Your task to perform on an android device: check out phone information Image 0: 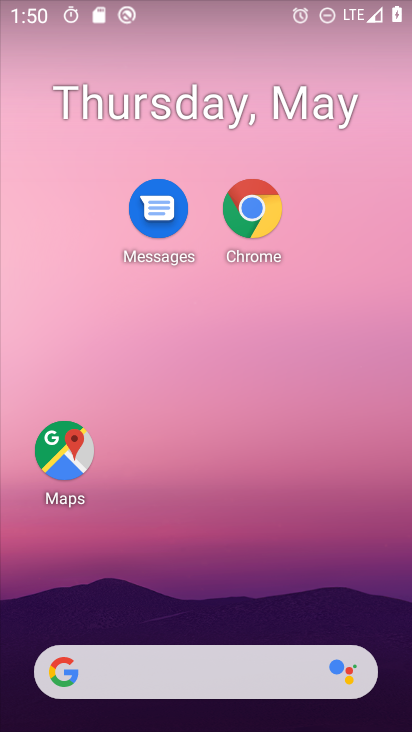
Step 0: drag from (173, 600) to (175, 115)
Your task to perform on an android device: check out phone information Image 1: 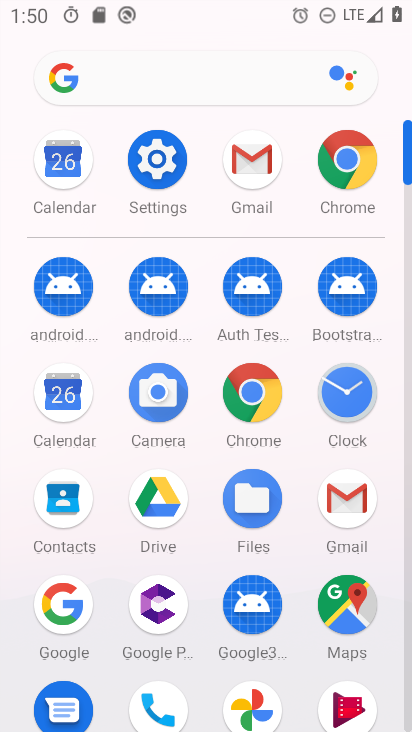
Step 1: click (157, 166)
Your task to perform on an android device: check out phone information Image 2: 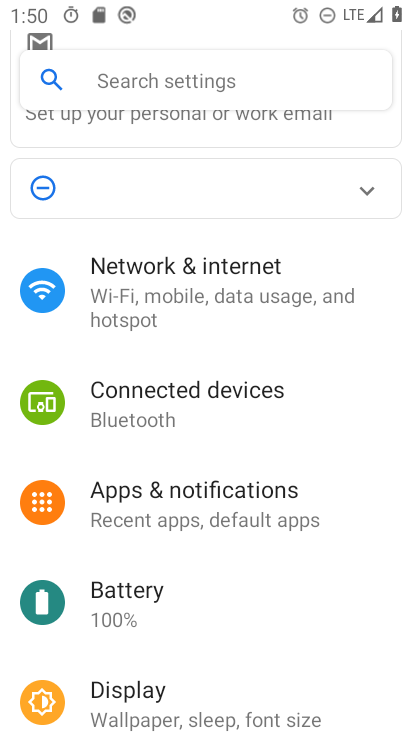
Step 2: drag from (185, 696) to (183, 219)
Your task to perform on an android device: check out phone information Image 3: 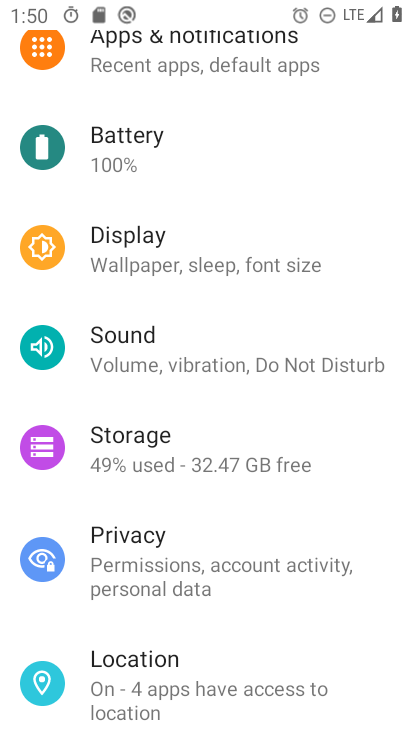
Step 3: drag from (162, 640) to (244, 166)
Your task to perform on an android device: check out phone information Image 4: 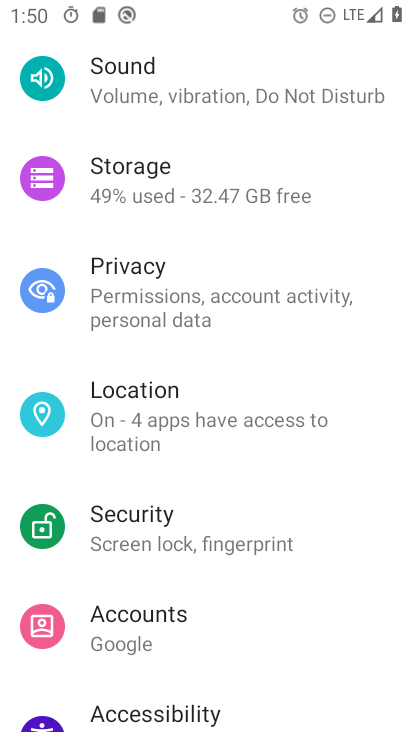
Step 4: drag from (214, 646) to (221, 211)
Your task to perform on an android device: check out phone information Image 5: 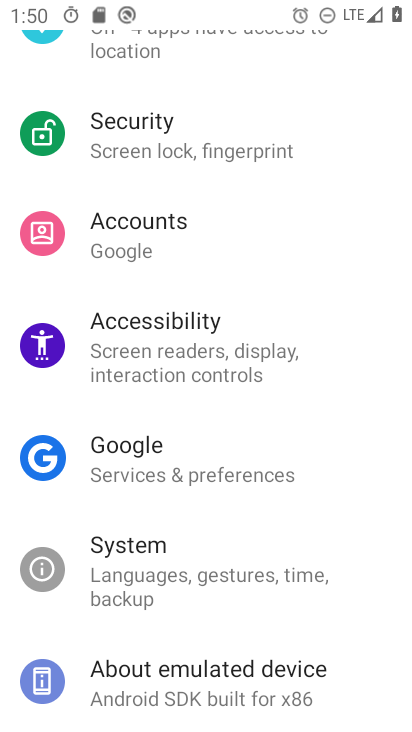
Step 5: click (156, 698)
Your task to perform on an android device: check out phone information Image 6: 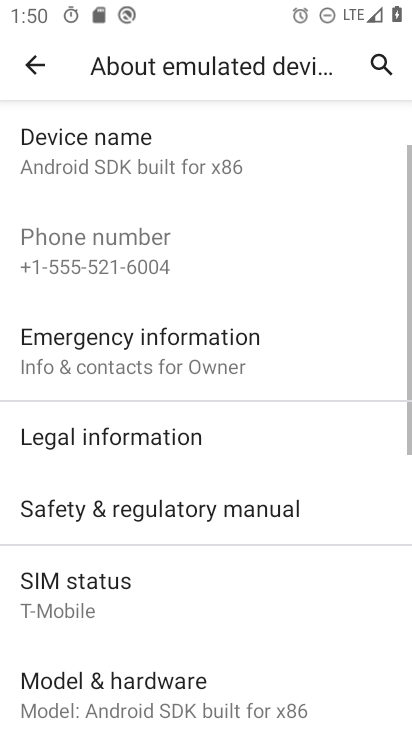
Step 6: task complete